Your task to perform on an android device: choose inbox layout in the gmail app Image 0: 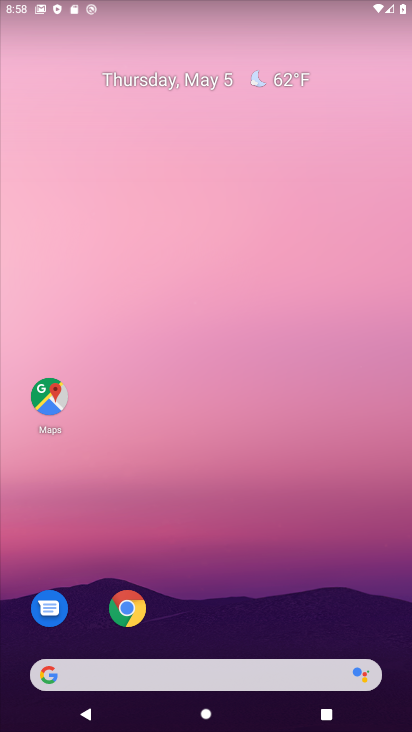
Step 0: drag from (349, 554) to (341, 13)
Your task to perform on an android device: choose inbox layout in the gmail app Image 1: 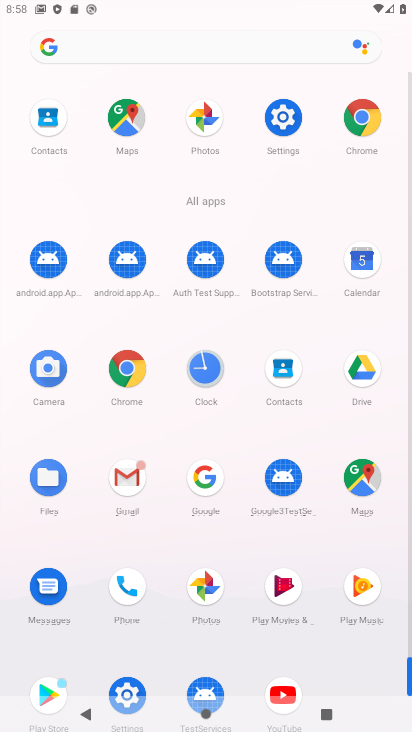
Step 1: click (126, 474)
Your task to perform on an android device: choose inbox layout in the gmail app Image 2: 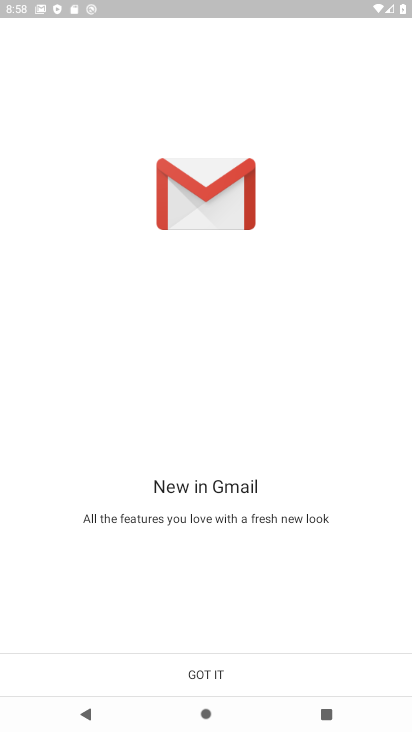
Step 2: click (207, 672)
Your task to perform on an android device: choose inbox layout in the gmail app Image 3: 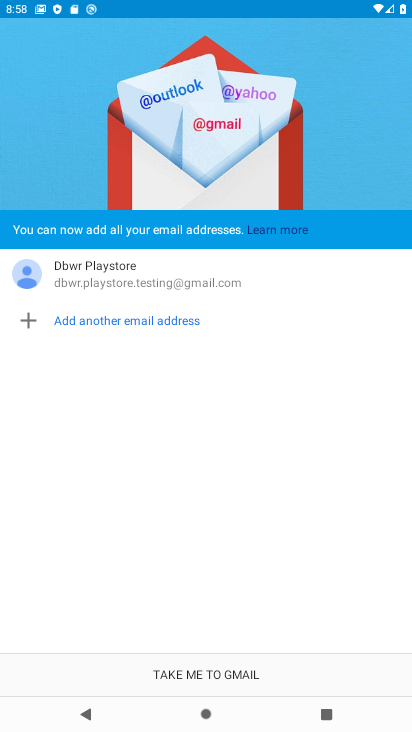
Step 3: click (211, 668)
Your task to perform on an android device: choose inbox layout in the gmail app Image 4: 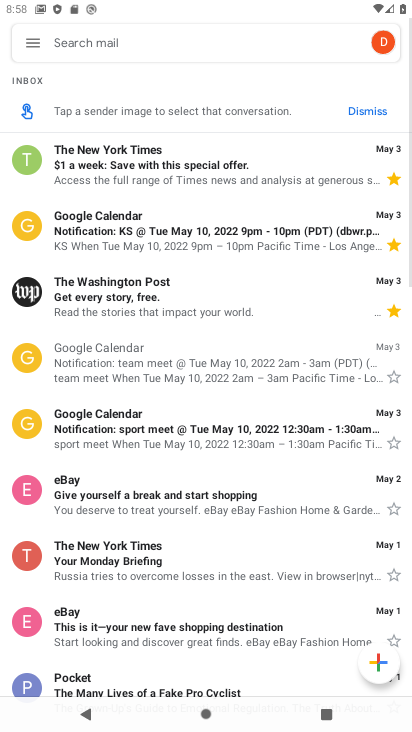
Step 4: click (27, 42)
Your task to perform on an android device: choose inbox layout in the gmail app Image 5: 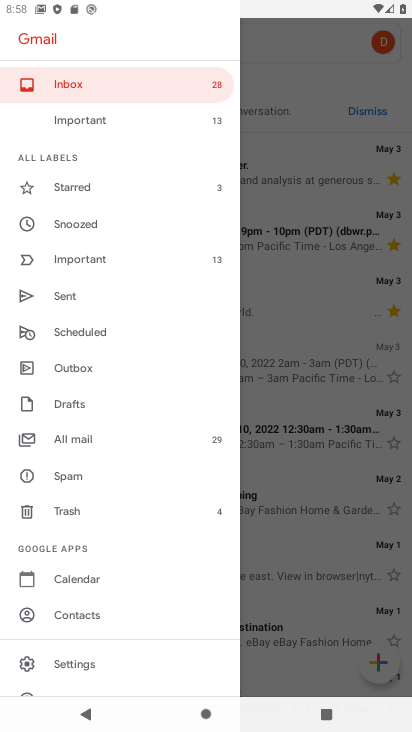
Step 5: click (71, 663)
Your task to perform on an android device: choose inbox layout in the gmail app Image 6: 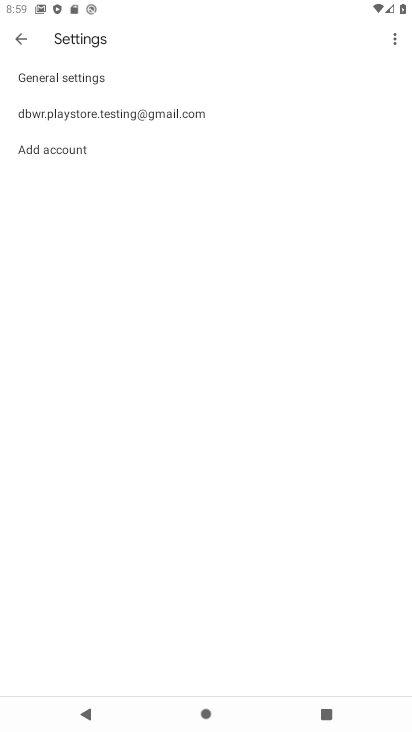
Step 6: click (86, 73)
Your task to perform on an android device: choose inbox layout in the gmail app Image 7: 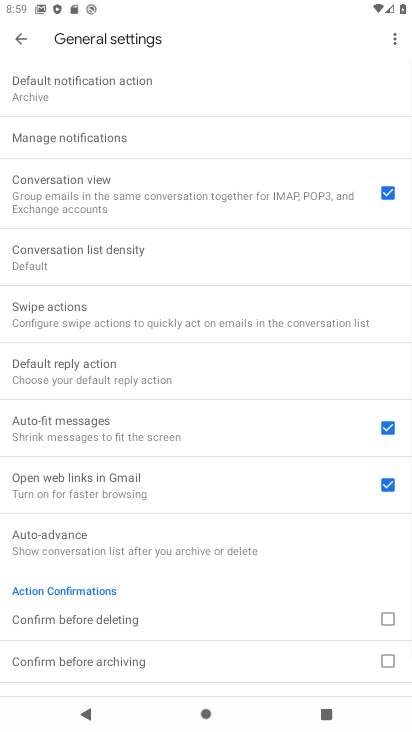
Step 7: click (25, 41)
Your task to perform on an android device: choose inbox layout in the gmail app Image 8: 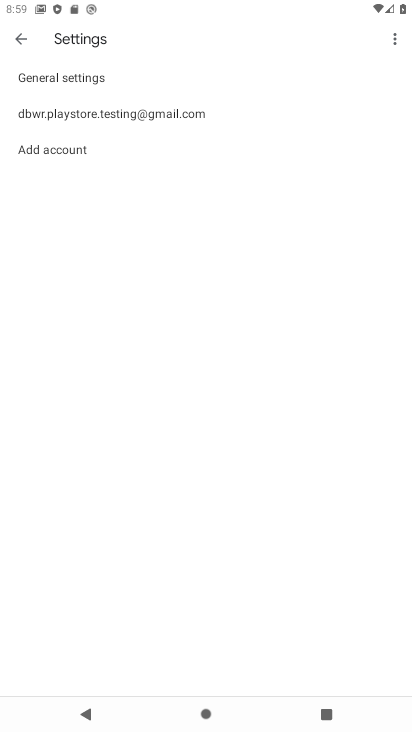
Step 8: click (80, 101)
Your task to perform on an android device: choose inbox layout in the gmail app Image 9: 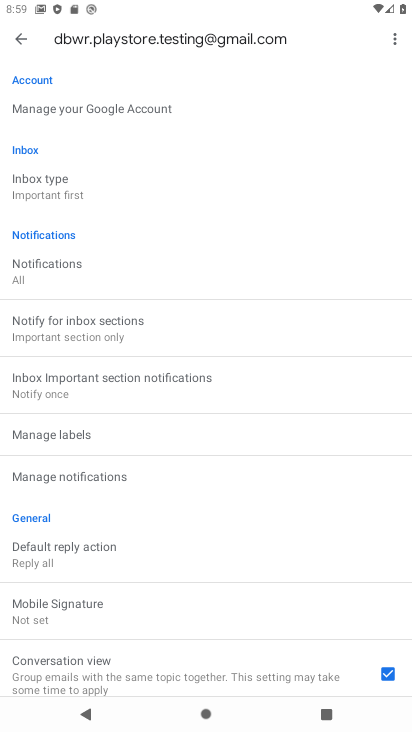
Step 9: click (83, 186)
Your task to perform on an android device: choose inbox layout in the gmail app Image 10: 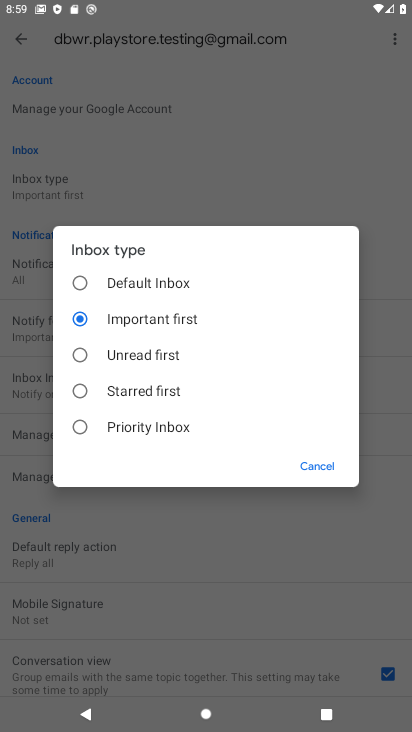
Step 10: click (142, 282)
Your task to perform on an android device: choose inbox layout in the gmail app Image 11: 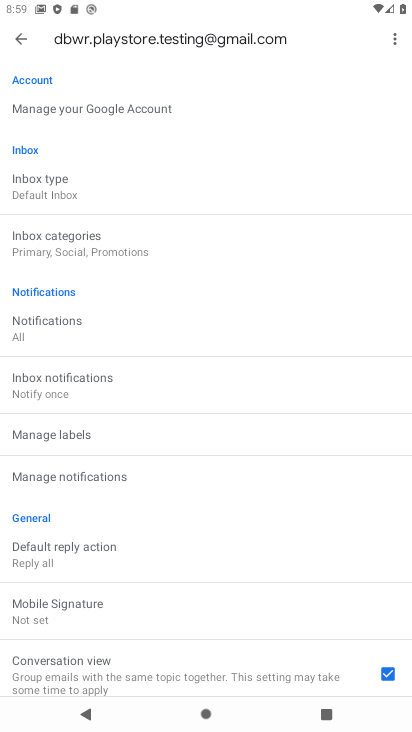
Step 11: task complete